Your task to perform on an android device: Do I have any events today? Image 0: 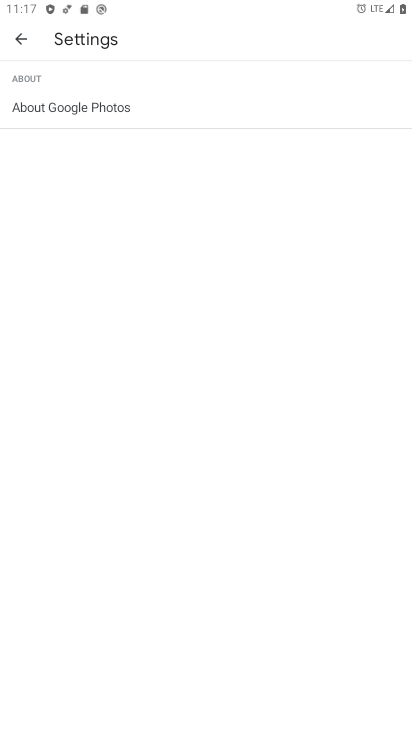
Step 0: press home button
Your task to perform on an android device: Do I have any events today? Image 1: 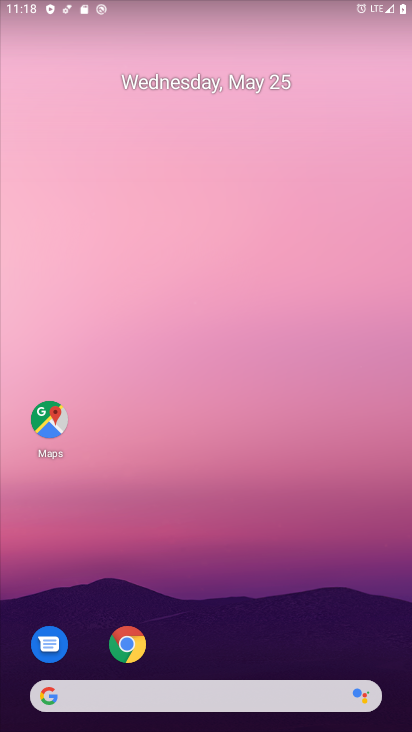
Step 1: drag from (253, 635) to (224, 219)
Your task to perform on an android device: Do I have any events today? Image 2: 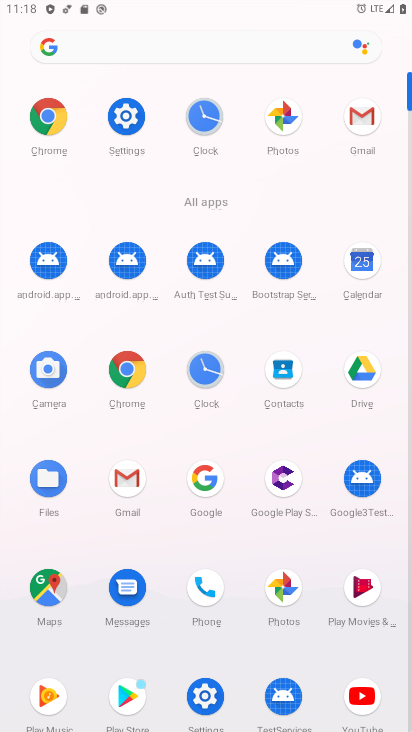
Step 2: click (362, 262)
Your task to perform on an android device: Do I have any events today? Image 3: 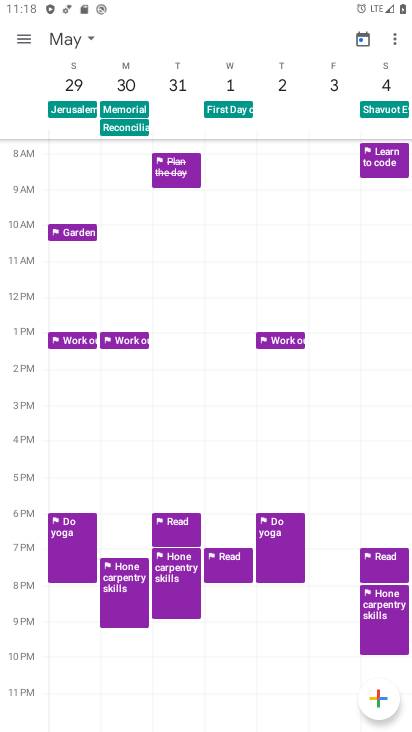
Step 3: click (362, 37)
Your task to perform on an android device: Do I have any events today? Image 4: 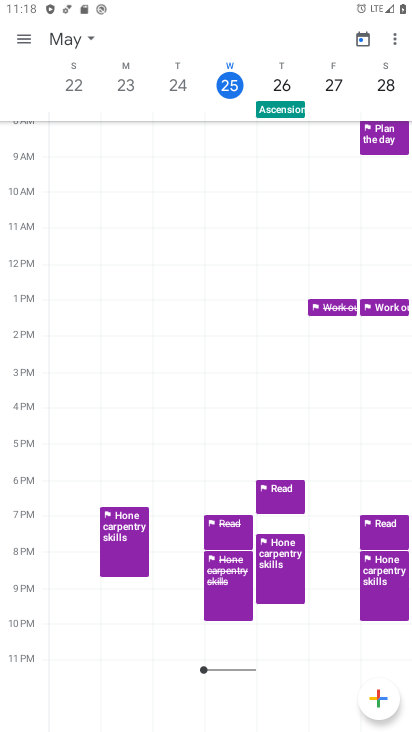
Step 4: click (88, 38)
Your task to perform on an android device: Do I have any events today? Image 5: 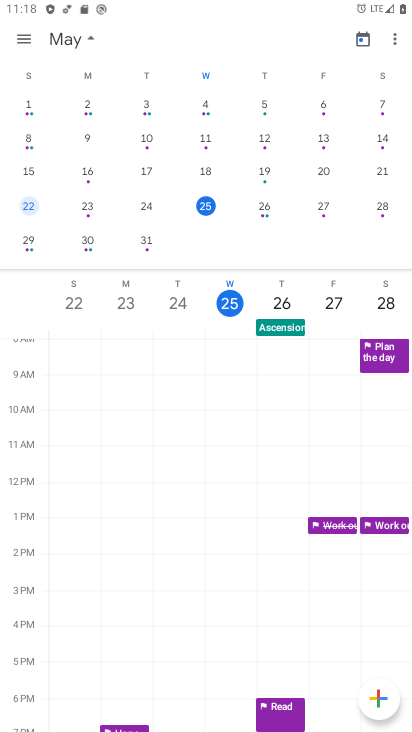
Step 5: click (208, 203)
Your task to perform on an android device: Do I have any events today? Image 6: 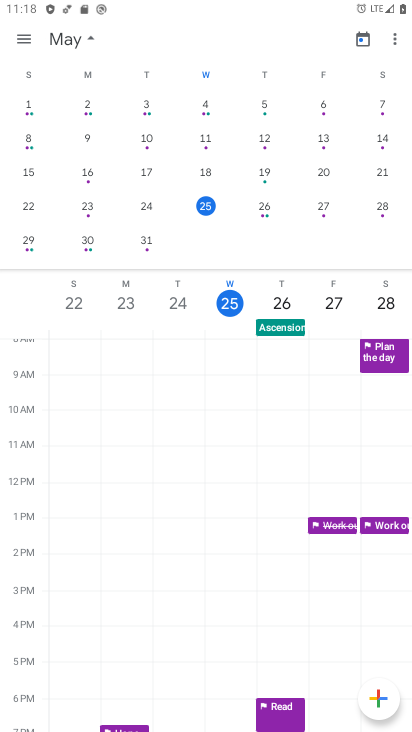
Step 6: click (24, 37)
Your task to perform on an android device: Do I have any events today? Image 7: 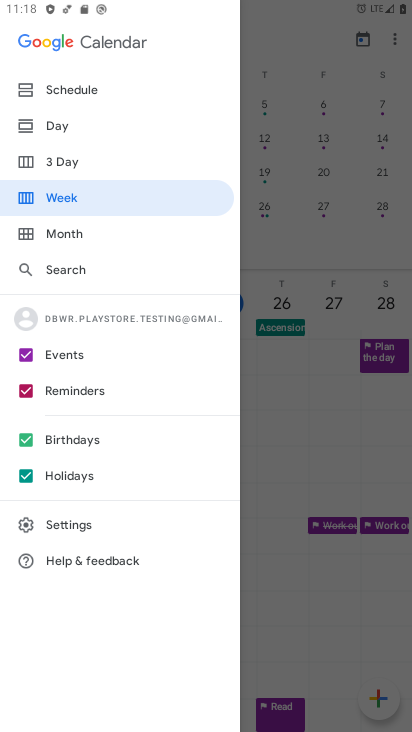
Step 7: click (75, 92)
Your task to perform on an android device: Do I have any events today? Image 8: 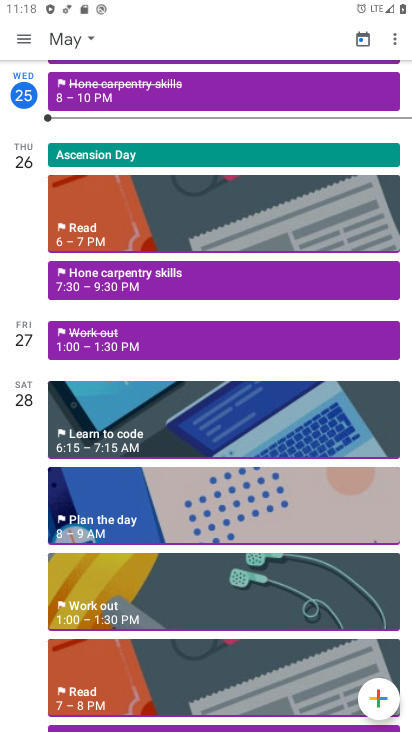
Step 8: task complete